Your task to perform on an android device: turn off javascript in the chrome app Image 0: 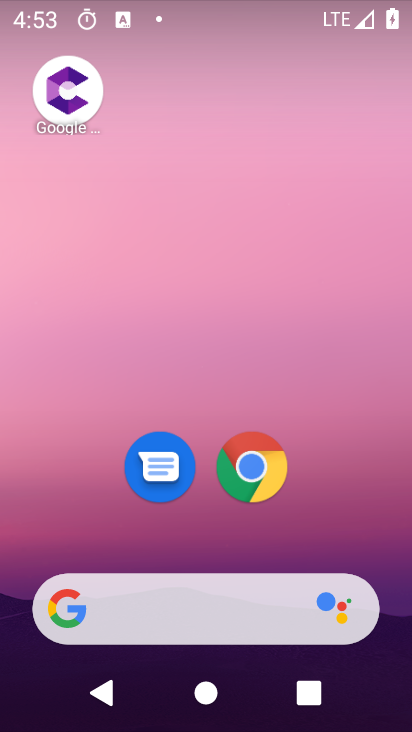
Step 0: drag from (200, 588) to (342, 2)
Your task to perform on an android device: turn off javascript in the chrome app Image 1: 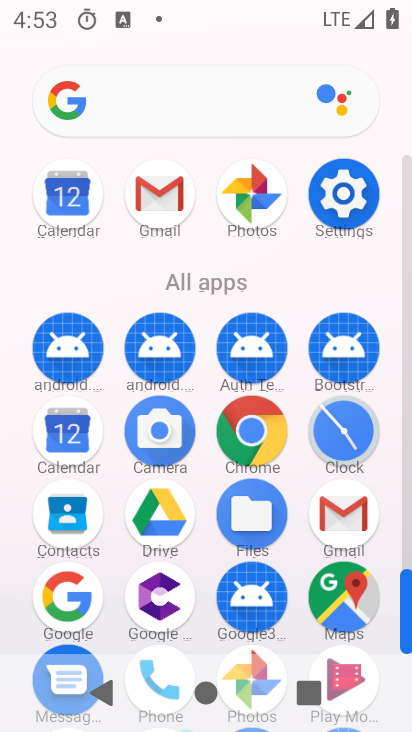
Step 1: click (254, 439)
Your task to perform on an android device: turn off javascript in the chrome app Image 2: 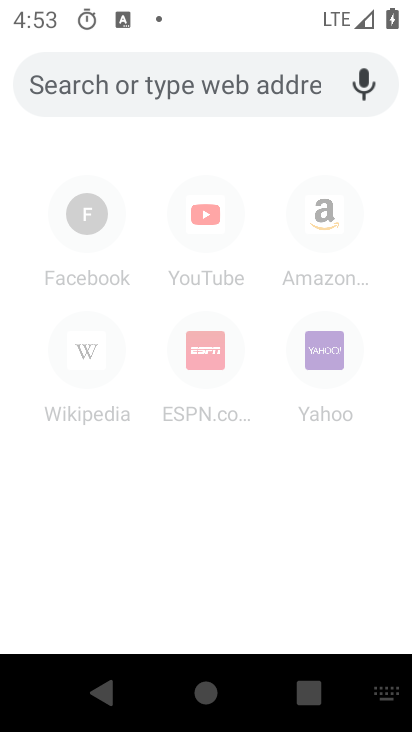
Step 2: press back button
Your task to perform on an android device: turn off javascript in the chrome app Image 3: 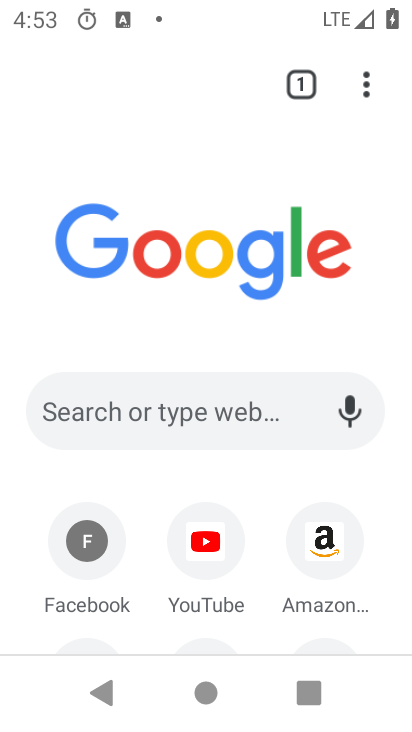
Step 3: click (374, 75)
Your task to perform on an android device: turn off javascript in the chrome app Image 4: 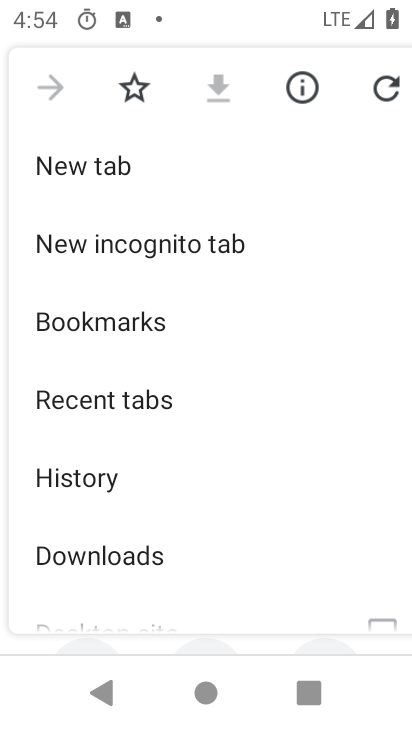
Step 4: drag from (177, 533) to (151, 211)
Your task to perform on an android device: turn off javascript in the chrome app Image 5: 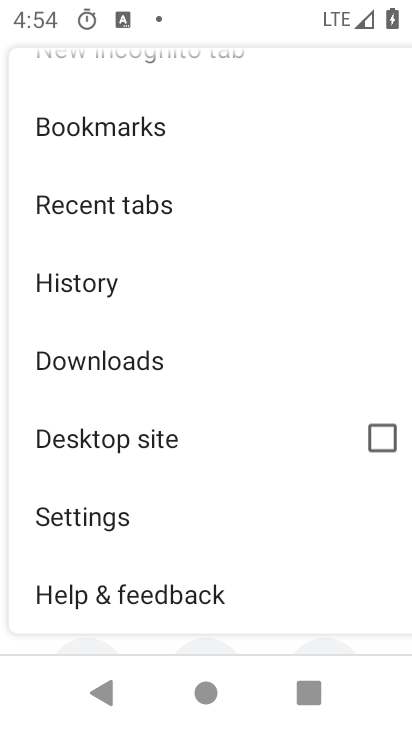
Step 5: click (130, 534)
Your task to perform on an android device: turn off javascript in the chrome app Image 6: 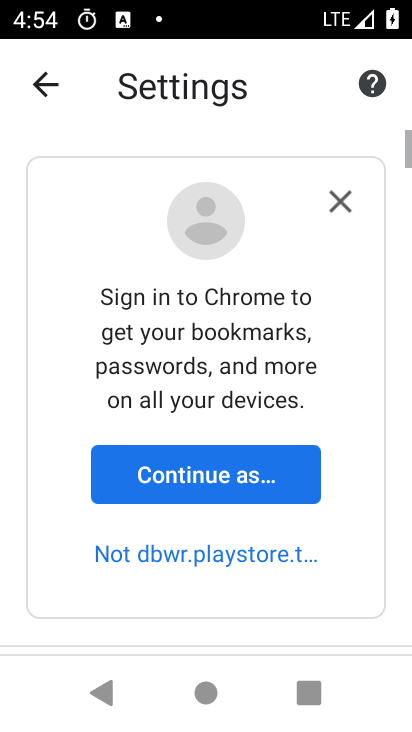
Step 6: drag from (263, 615) to (265, 2)
Your task to perform on an android device: turn off javascript in the chrome app Image 7: 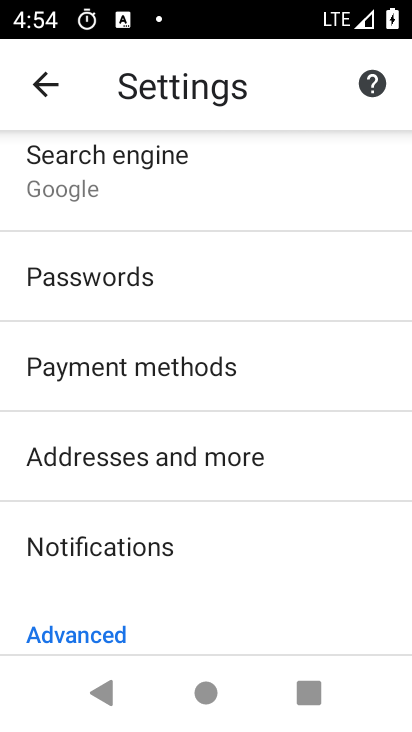
Step 7: drag from (205, 301) to (300, 199)
Your task to perform on an android device: turn off javascript in the chrome app Image 8: 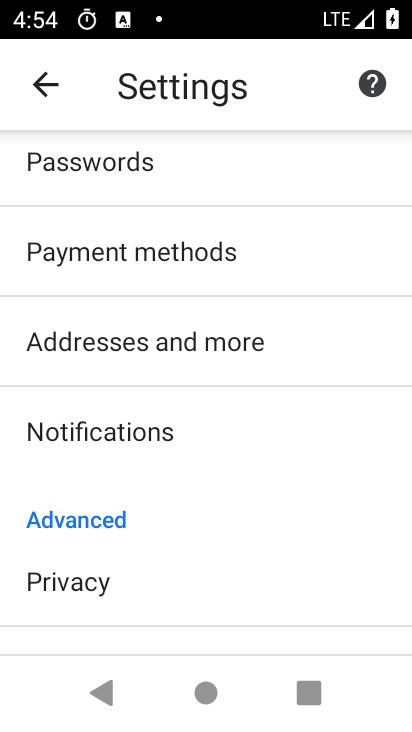
Step 8: drag from (245, 610) to (244, 159)
Your task to perform on an android device: turn off javascript in the chrome app Image 9: 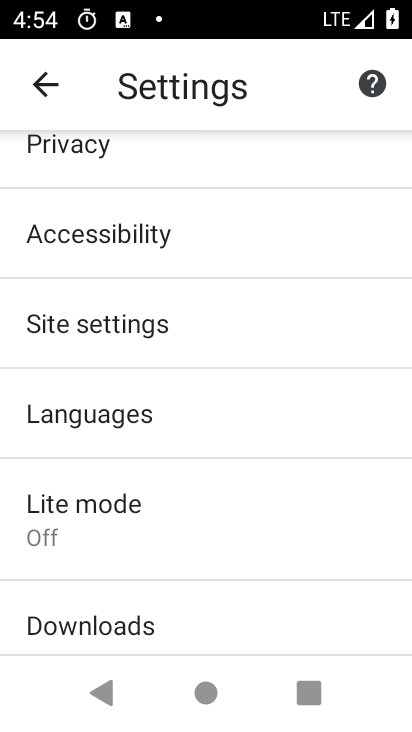
Step 9: click (152, 334)
Your task to perform on an android device: turn off javascript in the chrome app Image 10: 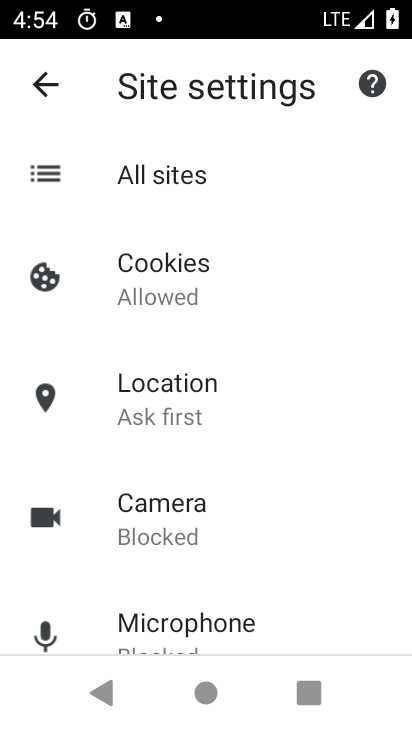
Step 10: drag from (220, 652) to (172, 209)
Your task to perform on an android device: turn off javascript in the chrome app Image 11: 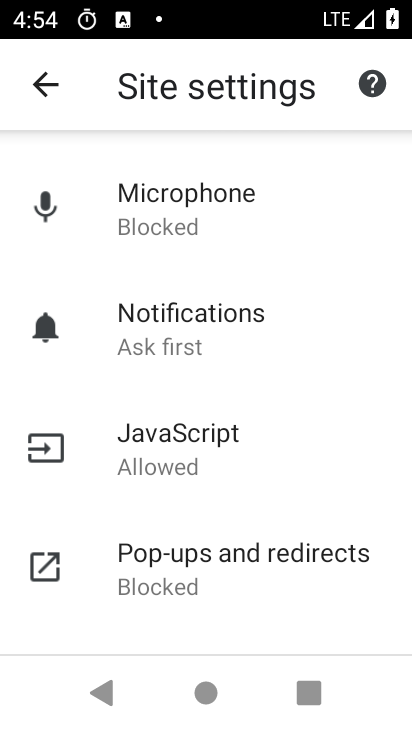
Step 11: click (215, 447)
Your task to perform on an android device: turn off javascript in the chrome app Image 12: 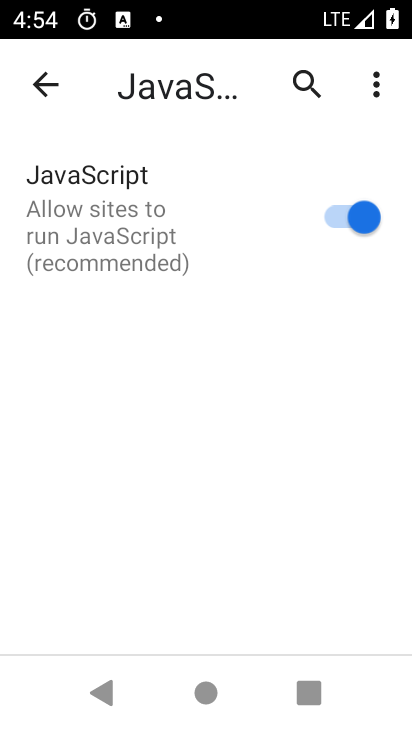
Step 12: click (332, 207)
Your task to perform on an android device: turn off javascript in the chrome app Image 13: 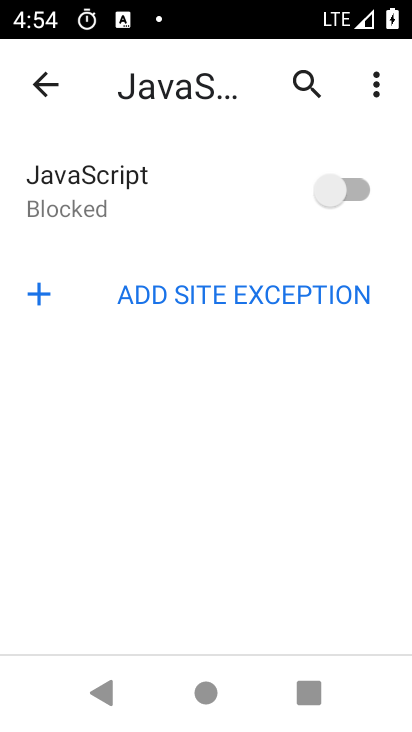
Step 13: task complete